Your task to perform on an android device: turn off data saver in the chrome app Image 0: 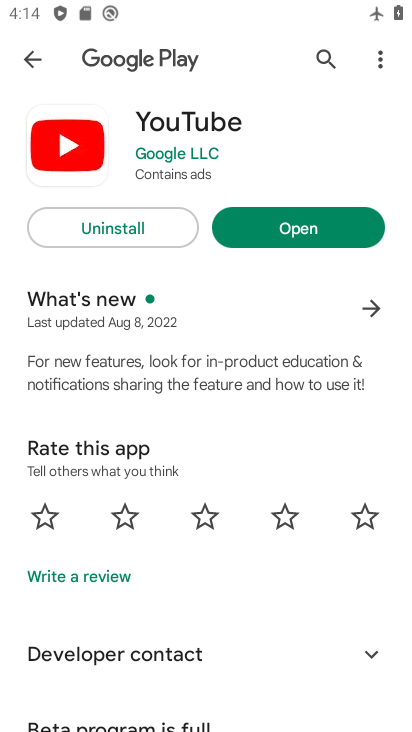
Step 0: press home button
Your task to perform on an android device: turn off data saver in the chrome app Image 1: 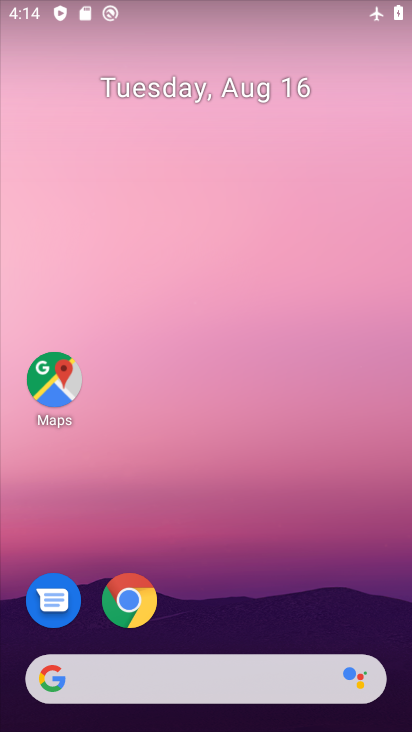
Step 1: drag from (206, 334) to (219, 175)
Your task to perform on an android device: turn off data saver in the chrome app Image 2: 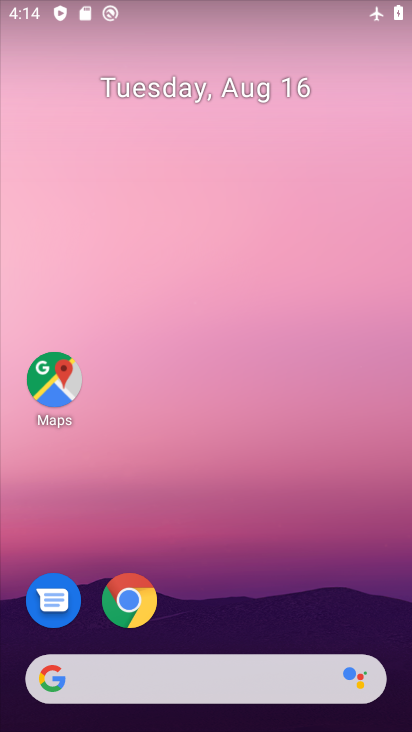
Step 2: click (215, 4)
Your task to perform on an android device: turn off data saver in the chrome app Image 3: 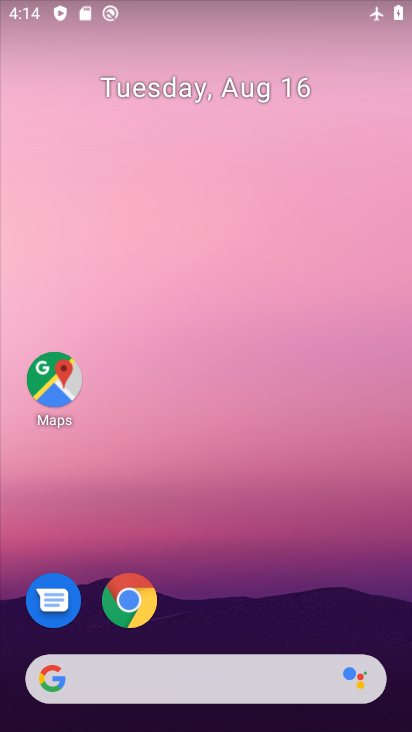
Step 3: drag from (219, 522) to (226, 248)
Your task to perform on an android device: turn off data saver in the chrome app Image 4: 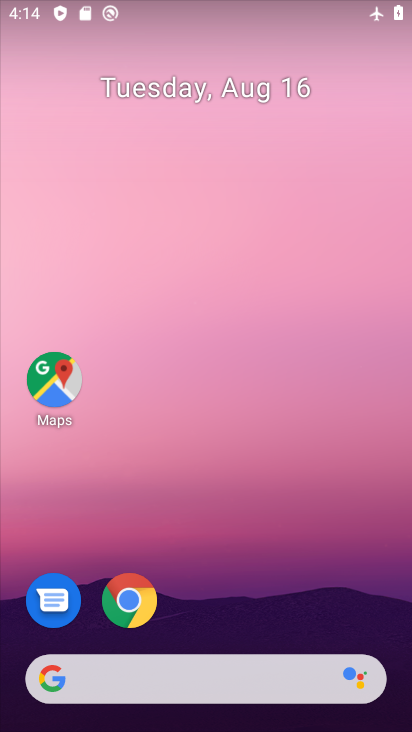
Step 4: click (132, 597)
Your task to perform on an android device: turn off data saver in the chrome app Image 5: 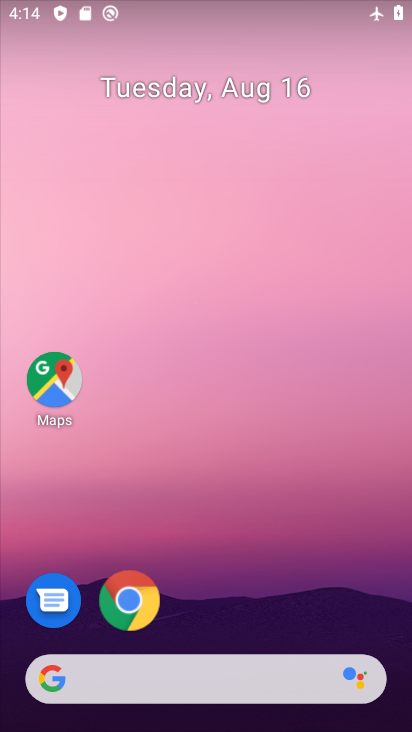
Step 5: click (102, 609)
Your task to perform on an android device: turn off data saver in the chrome app Image 6: 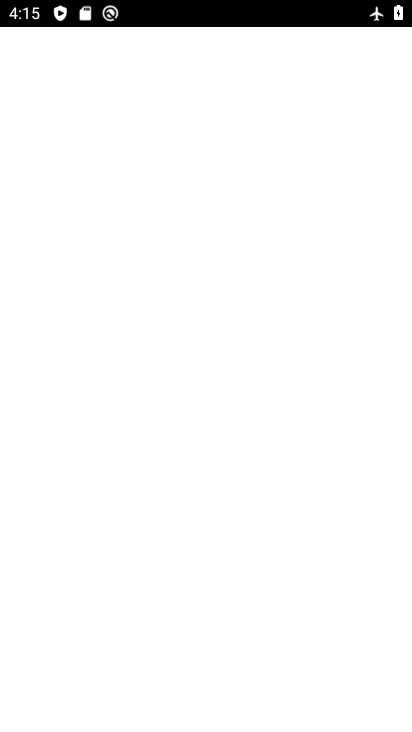
Step 6: click (142, 597)
Your task to perform on an android device: turn off data saver in the chrome app Image 7: 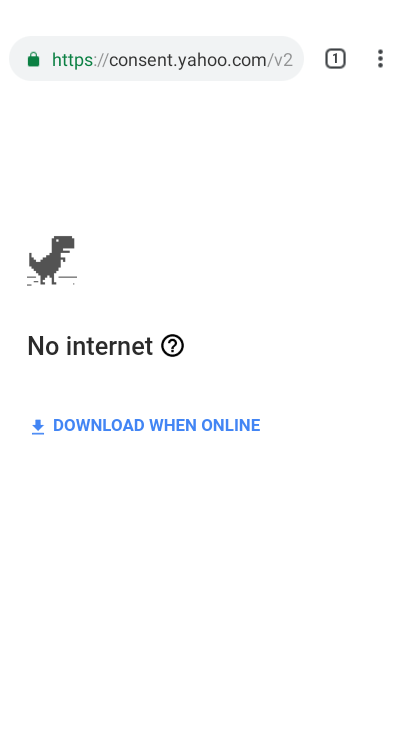
Step 7: click (130, 616)
Your task to perform on an android device: turn off data saver in the chrome app Image 8: 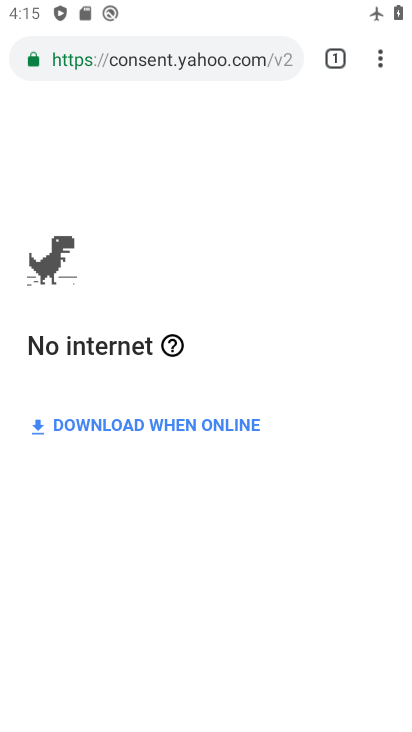
Step 8: click (378, 59)
Your task to perform on an android device: turn off data saver in the chrome app Image 9: 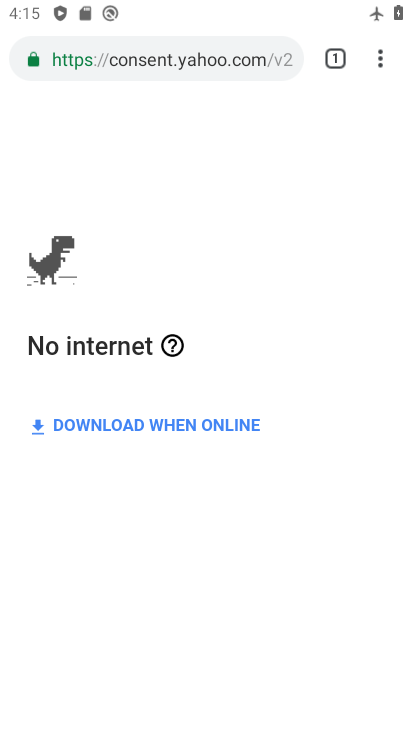
Step 9: click (378, 60)
Your task to perform on an android device: turn off data saver in the chrome app Image 10: 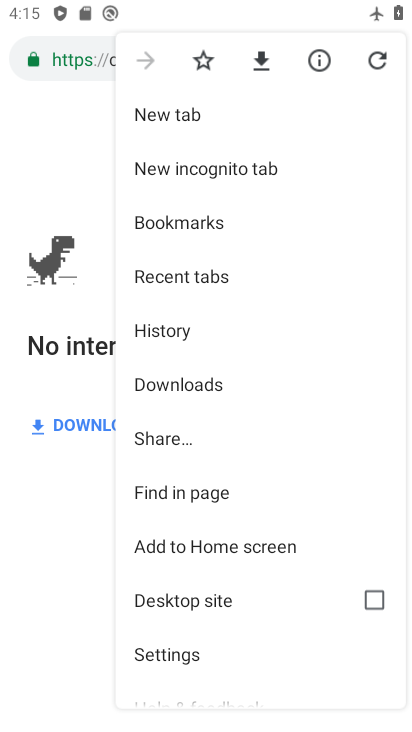
Step 10: click (166, 648)
Your task to perform on an android device: turn off data saver in the chrome app Image 11: 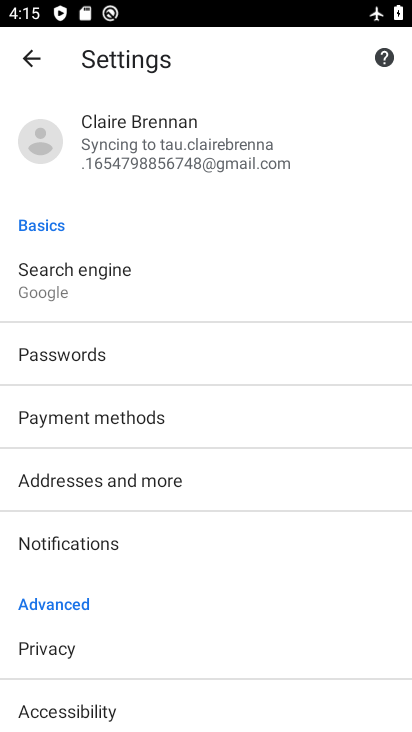
Step 11: drag from (139, 410) to (153, 305)
Your task to perform on an android device: turn off data saver in the chrome app Image 12: 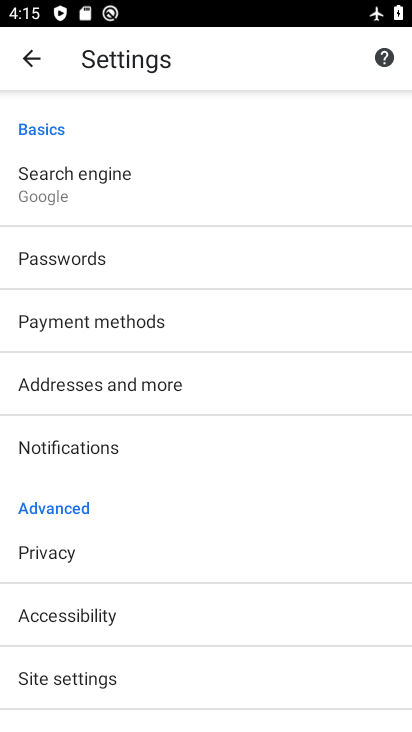
Step 12: drag from (106, 570) to (120, 299)
Your task to perform on an android device: turn off data saver in the chrome app Image 13: 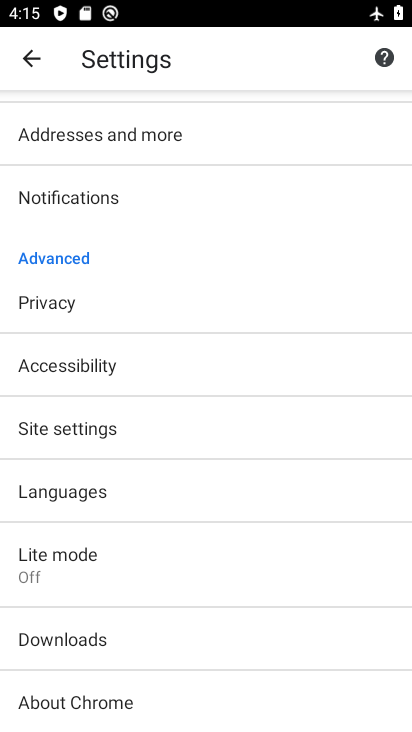
Step 13: click (72, 578)
Your task to perform on an android device: turn off data saver in the chrome app Image 14: 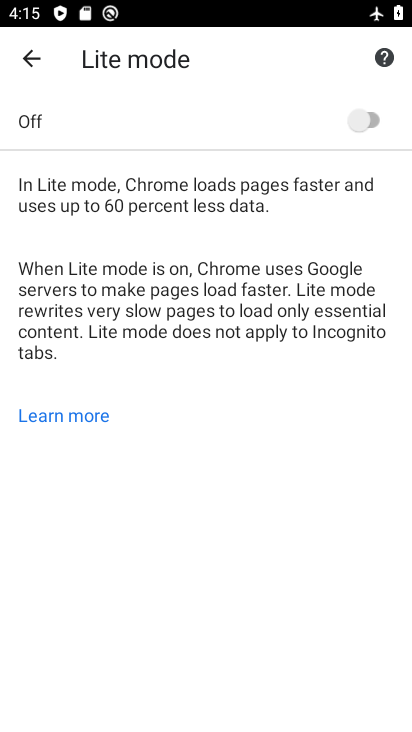
Step 14: task complete